Your task to perform on an android device: Open privacy settings Image 0: 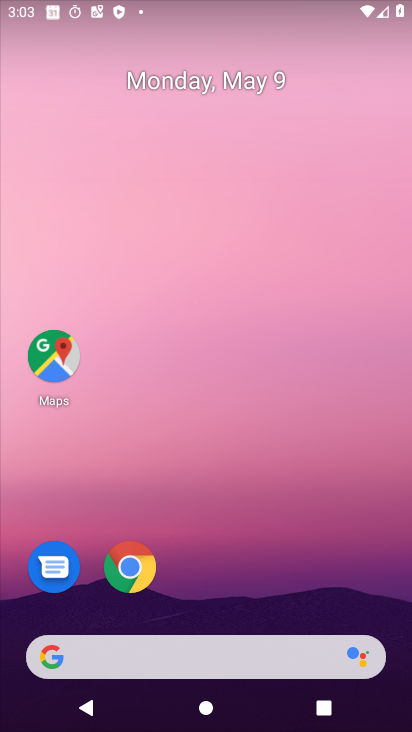
Step 0: drag from (268, 592) to (199, 85)
Your task to perform on an android device: Open privacy settings Image 1: 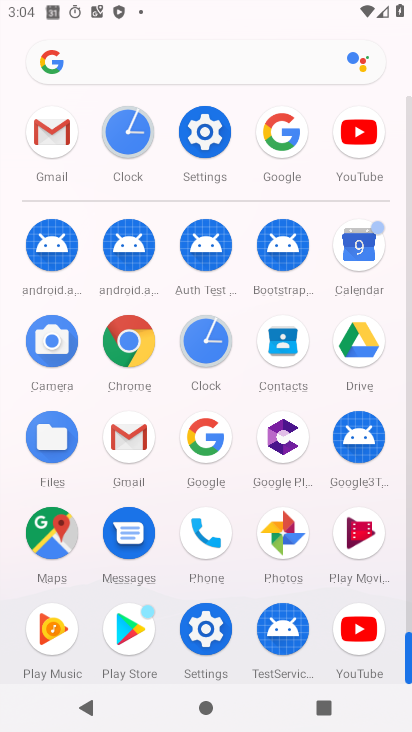
Step 1: click (207, 127)
Your task to perform on an android device: Open privacy settings Image 2: 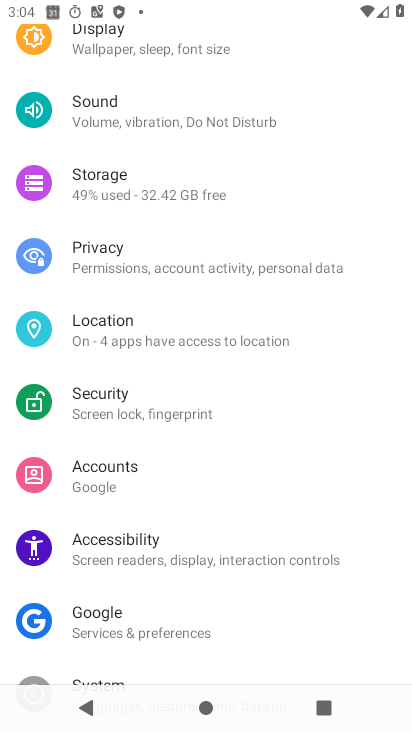
Step 2: click (135, 261)
Your task to perform on an android device: Open privacy settings Image 3: 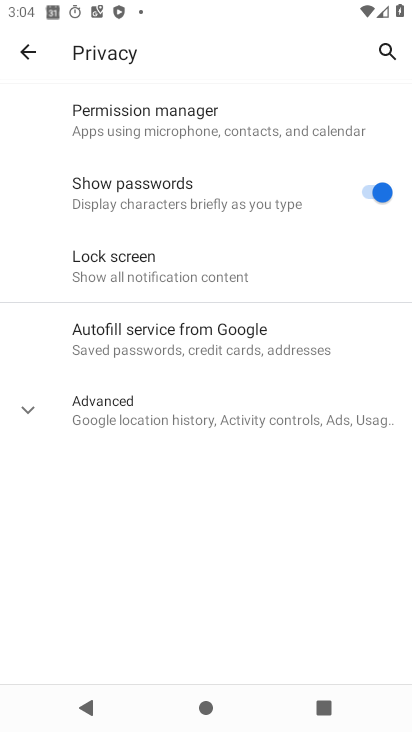
Step 3: task complete